Your task to perform on an android device: Go to CNN.com Image 0: 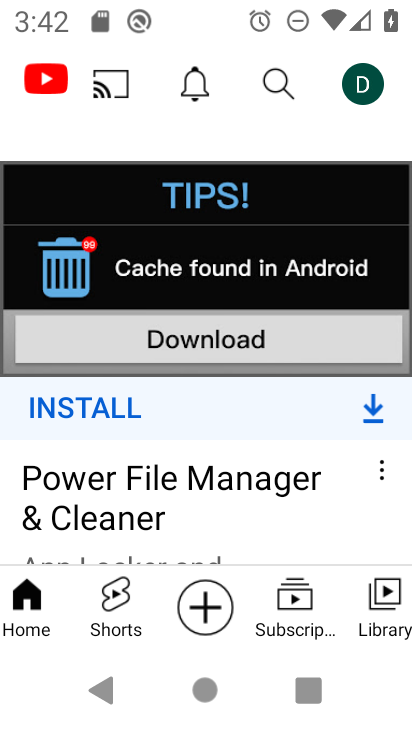
Step 0: press home button
Your task to perform on an android device: Go to CNN.com Image 1: 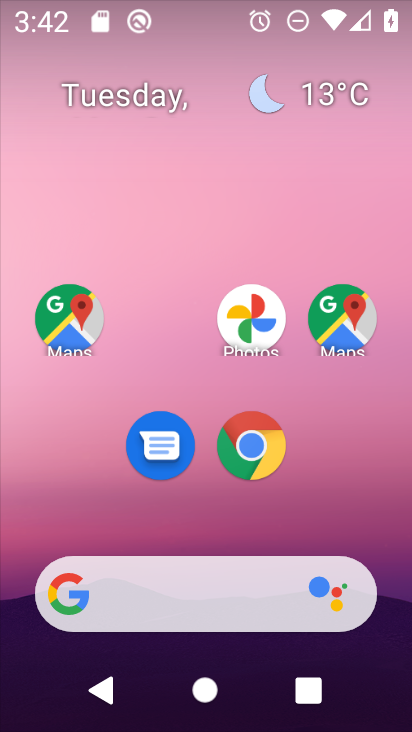
Step 1: drag from (397, 547) to (403, 174)
Your task to perform on an android device: Go to CNN.com Image 2: 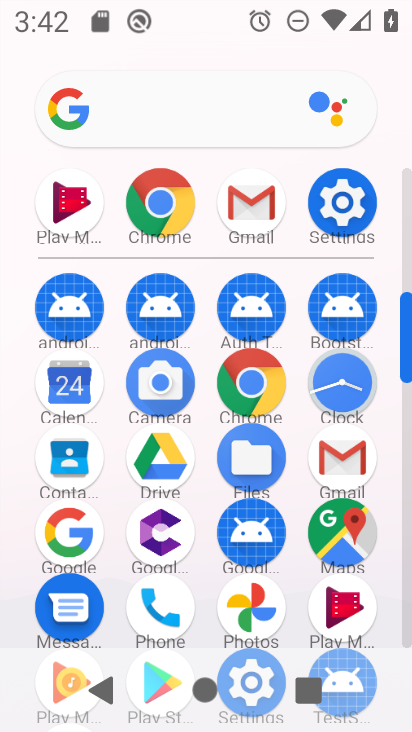
Step 2: drag from (391, 526) to (385, 359)
Your task to perform on an android device: Go to CNN.com Image 3: 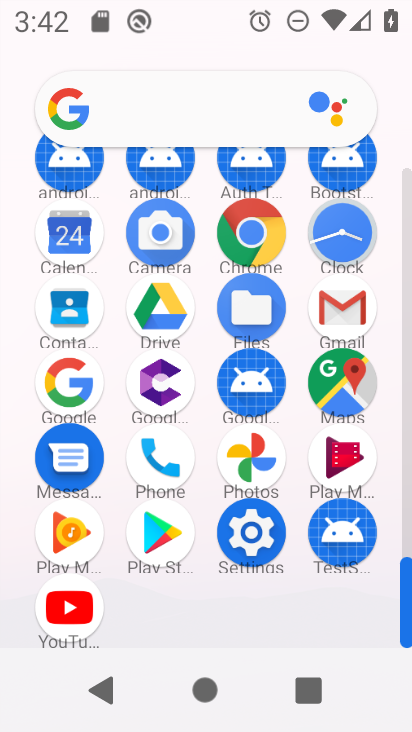
Step 3: click (276, 245)
Your task to perform on an android device: Go to CNN.com Image 4: 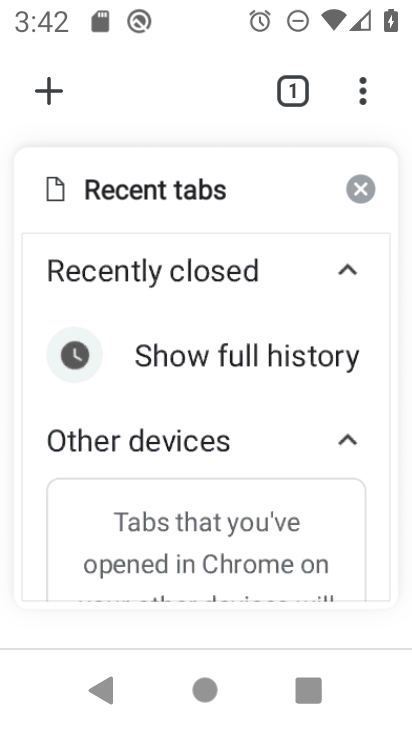
Step 4: press back button
Your task to perform on an android device: Go to CNN.com Image 5: 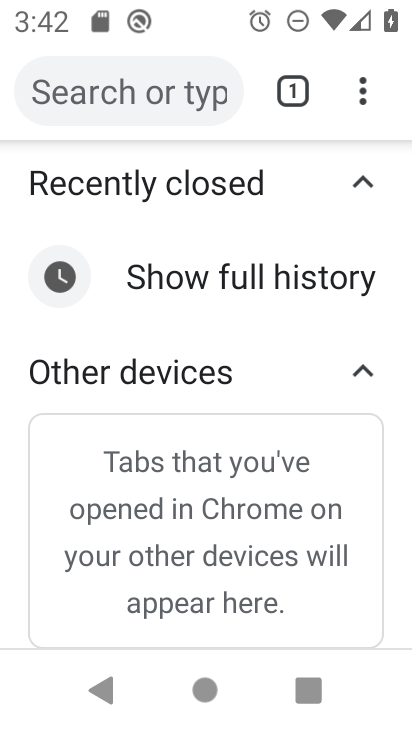
Step 5: click (171, 115)
Your task to perform on an android device: Go to CNN.com Image 6: 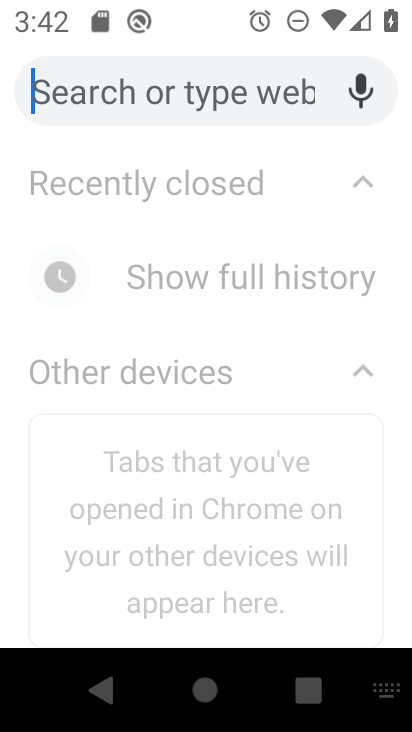
Step 6: type "cnn.com"
Your task to perform on an android device: Go to CNN.com Image 7: 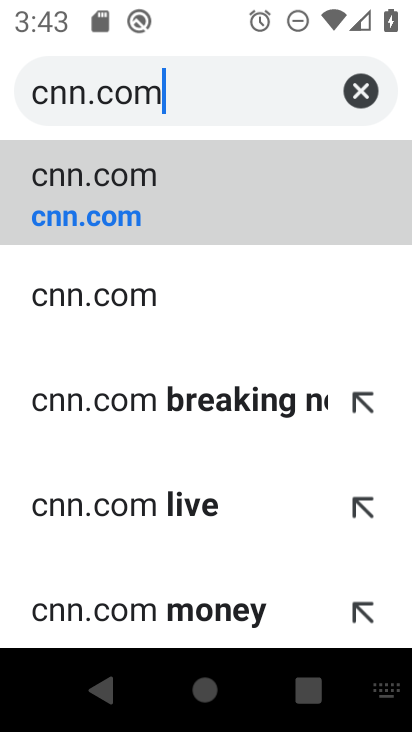
Step 7: click (146, 314)
Your task to perform on an android device: Go to CNN.com Image 8: 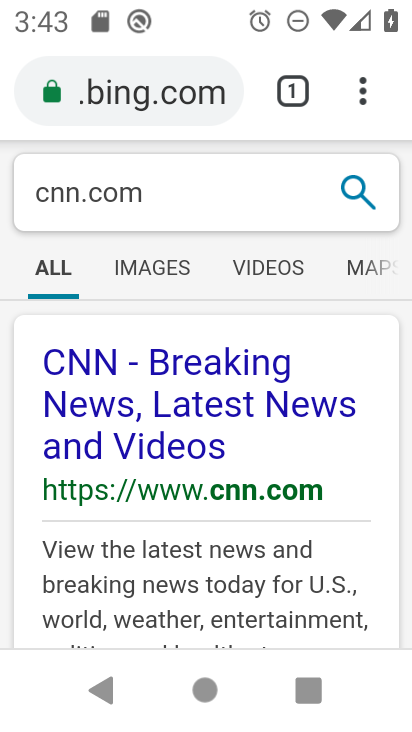
Step 8: click (227, 413)
Your task to perform on an android device: Go to CNN.com Image 9: 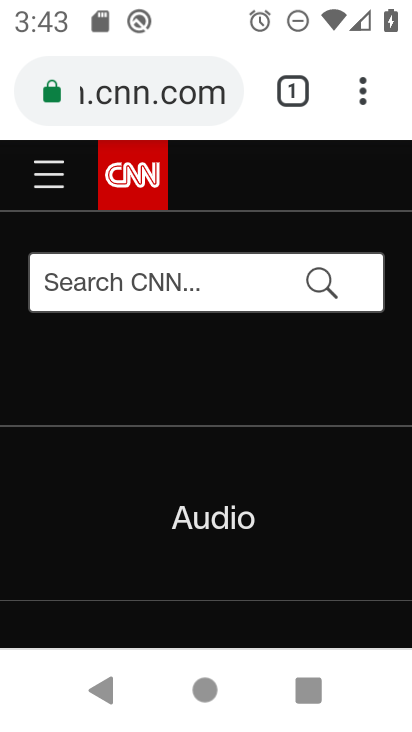
Step 9: task complete